Your task to perform on an android device: turn off data saver in the chrome app Image 0: 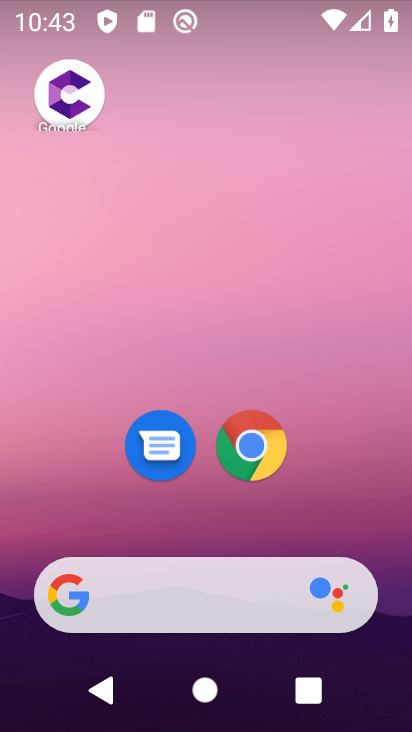
Step 0: click (241, 444)
Your task to perform on an android device: turn off data saver in the chrome app Image 1: 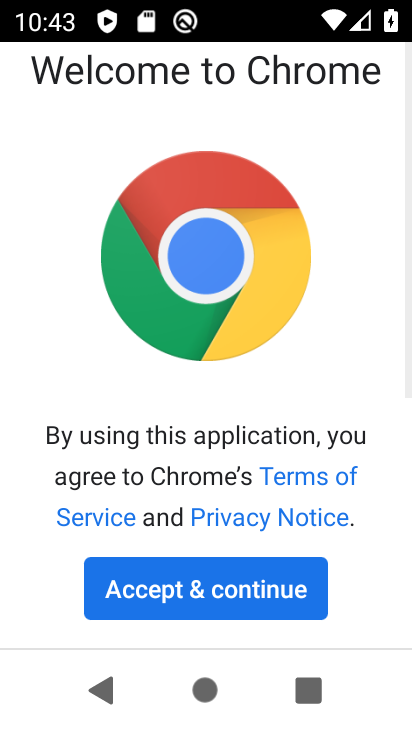
Step 1: click (263, 579)
Your task to perform on an android device: turn off data saver in the chrome app Image 2: 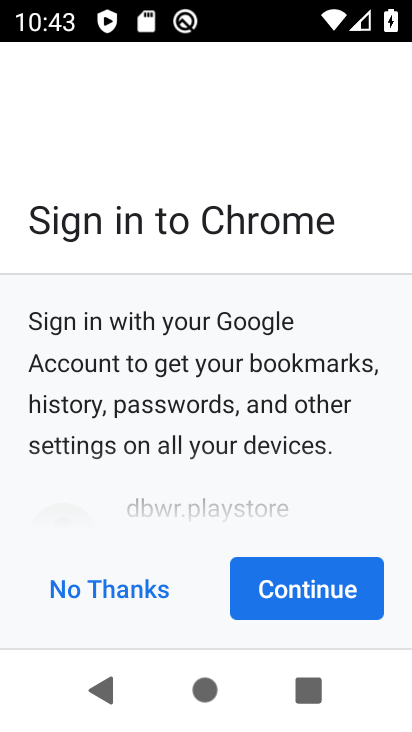
Step 2: click (271, 598)
Your task to perform on an android device: turn off data saver in the chrome app Image 3: 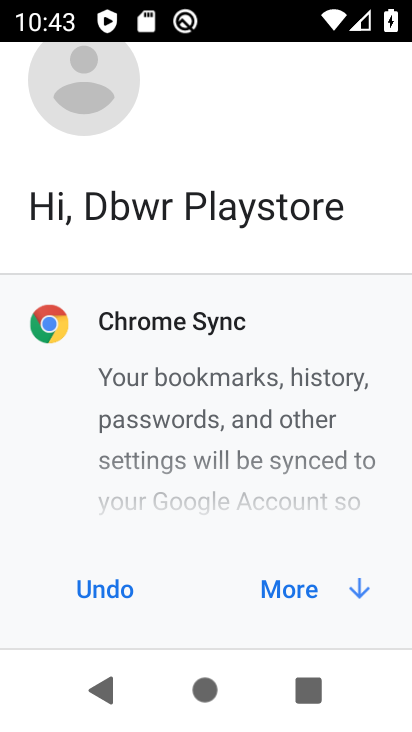
Step 3: click (272, 596)
Your task to perform on an android device: turn off data saver in the chrome app Image 4: 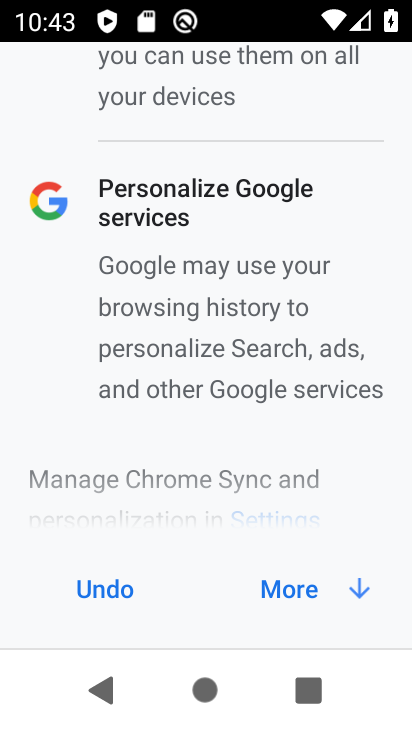
Step 4: click (272, 590)
Your task to perform on an android device: turn off data saver in the chrome app Image 5: 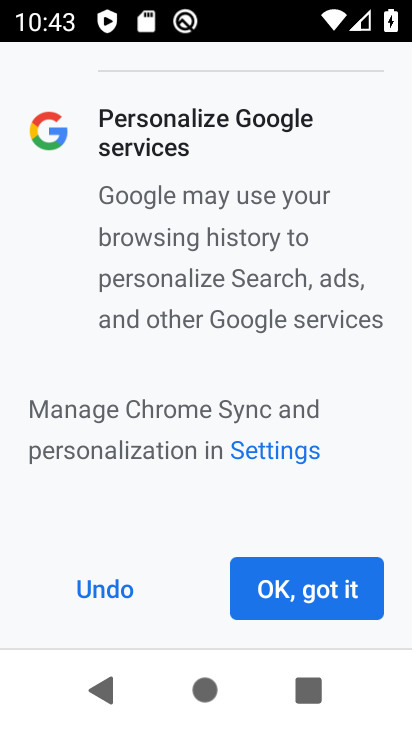
Step 5: click (272, 590)
Your task to perform on an android device: turn off data saver in the chrome app Image 6: 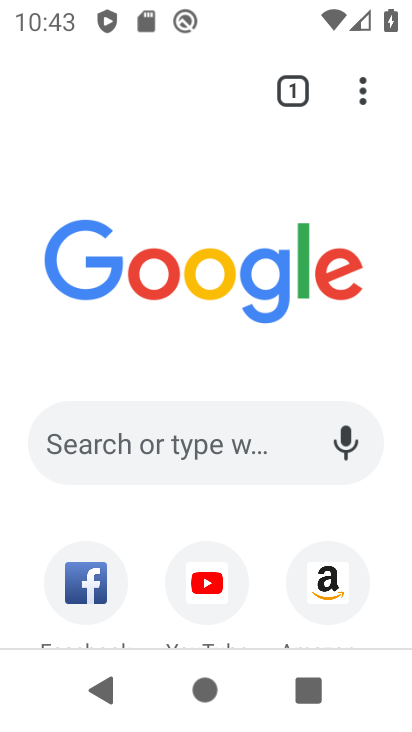
Step 6: click (355, 78)
Your task to perform on an android device: turn off data saver in the chrome app Image 7: 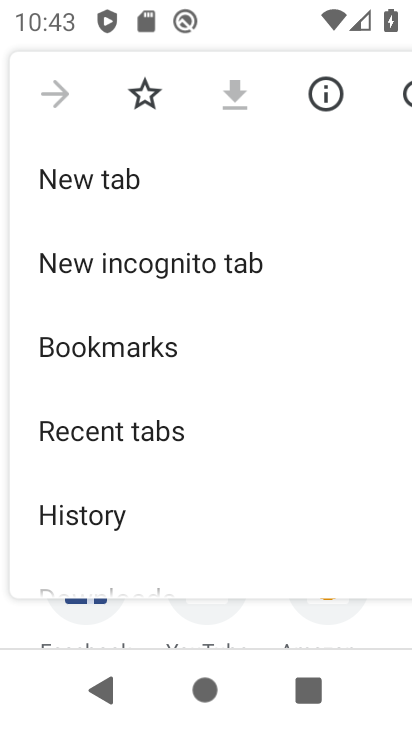
Step 7: drag from (128, 532) to (116, 190)
Your task to perform on an android device: turn off data saver in the chrome app Image 8: 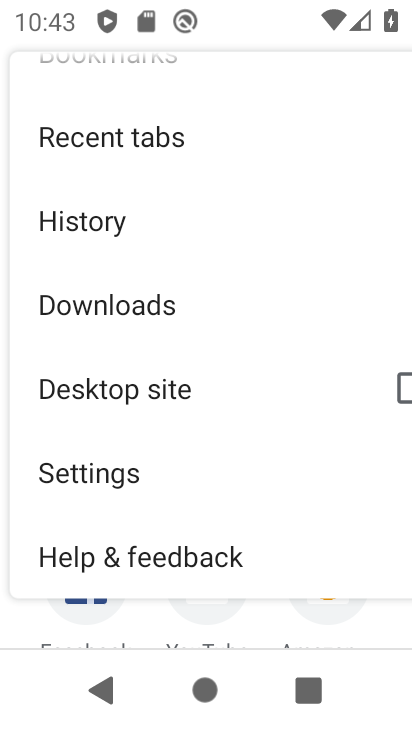
Step 8: click (121, 480)
Your task to perform on an android device: turn off data saver in the chrome app Image 9: 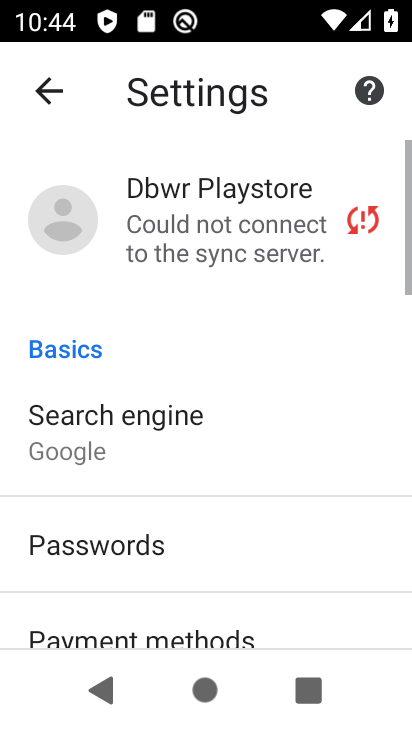
Step 9: drag from (124, 537) to (148, 112)
Your task to perform on an android device: turn off data saver in the chrome app Image 10: 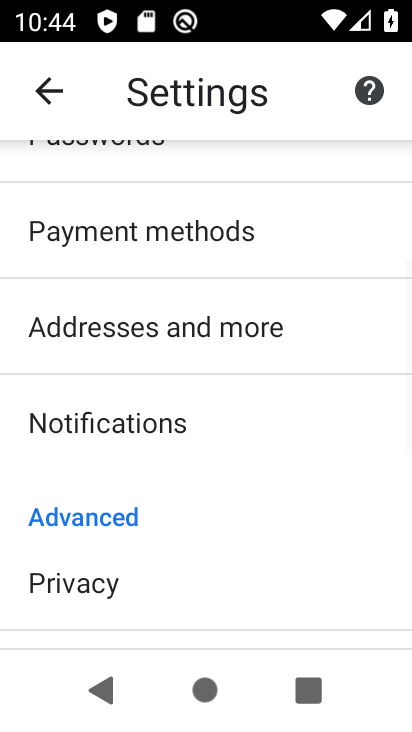
Step 10: drag from (181, 546) to (186, 226)
Your task to perform on an android device: turn off data saver in the chrome app Image 11: 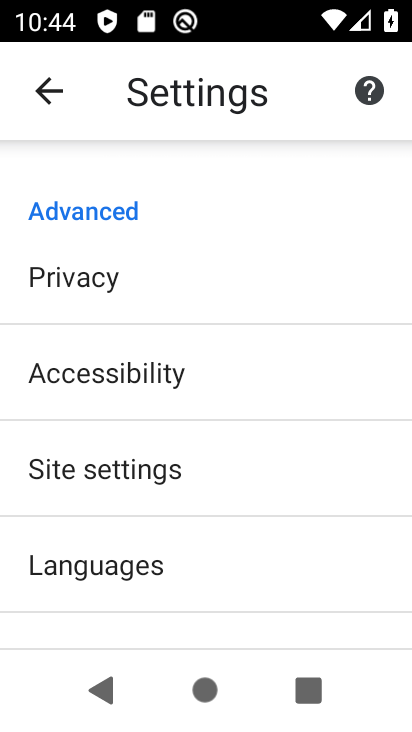
Step 11: drag from (138, 567) to (151, 309)
Your task to perform on an android device: turn off data saver in the chrome app Image 12: 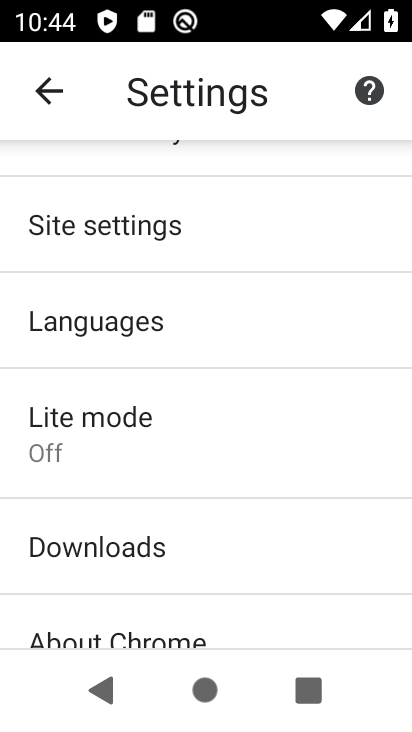
Step 12: click (140, 411)
Your task to perform on an android device: turn off data saver in the chrome app Image 13: 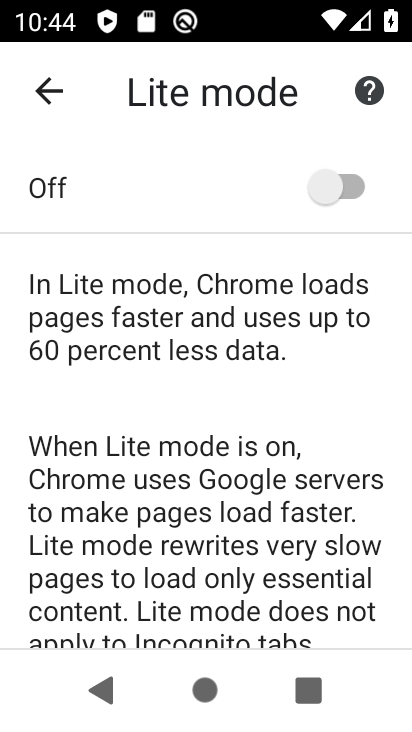
Step 13: task complete